Your task to perform on an android device: open app "Walmart Shopping & Grocery" (install if not already installed) and enter user name: "Hans@icloud.com" and password: "executing" Image 0: 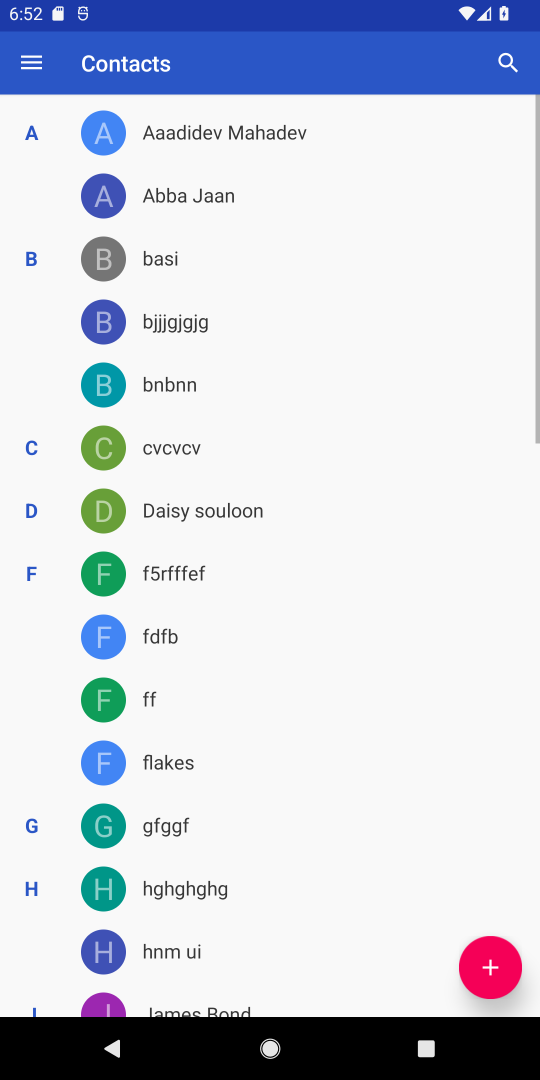
Step 0: press home button
Your task to perform on an android device: open app "Walmart Shopping & Grocery" (install if not already installed) and enter user name: "Hans@icloud.com" and password: "executing" Image 1: 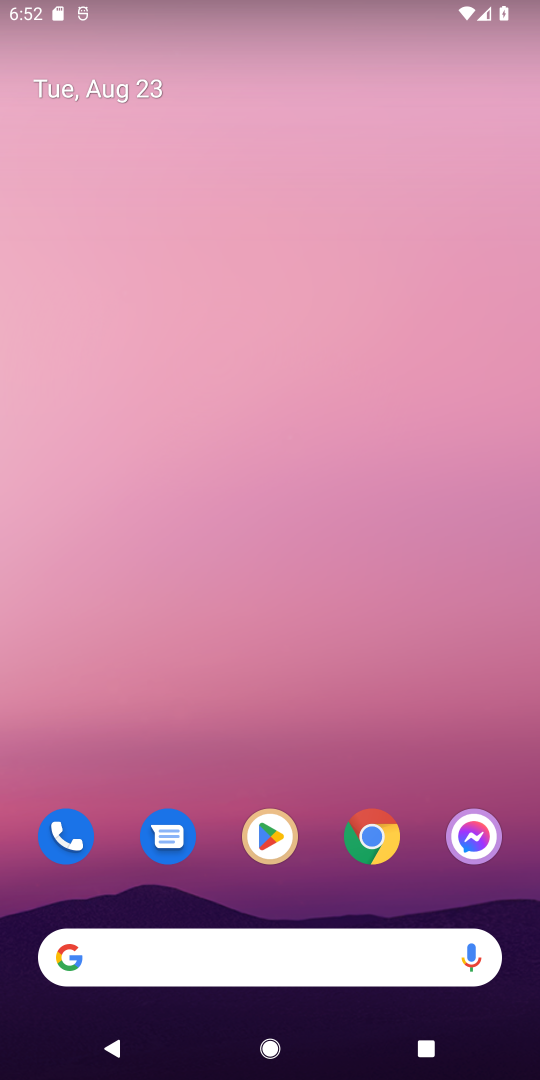
Step 1: click (277, 833)
Your task to perform on an android device: open app "Walmart Shopping & Grocery" (install if not already installed) and enter user name: "Hans@icloud.com" and password: "executing" Image 2: 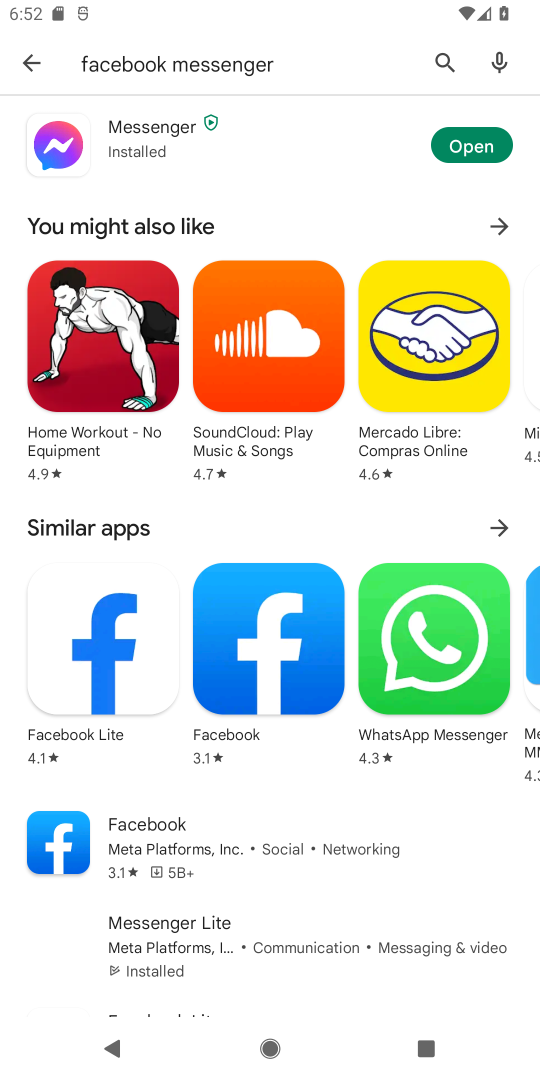
Step 2: click (438, 46)
Your task to perform on an android device: open app "Walmart Shopping & Grocery" (install if not already installed) and enter user name: "Hans@icloud.com" and password: "executing" Image 3: 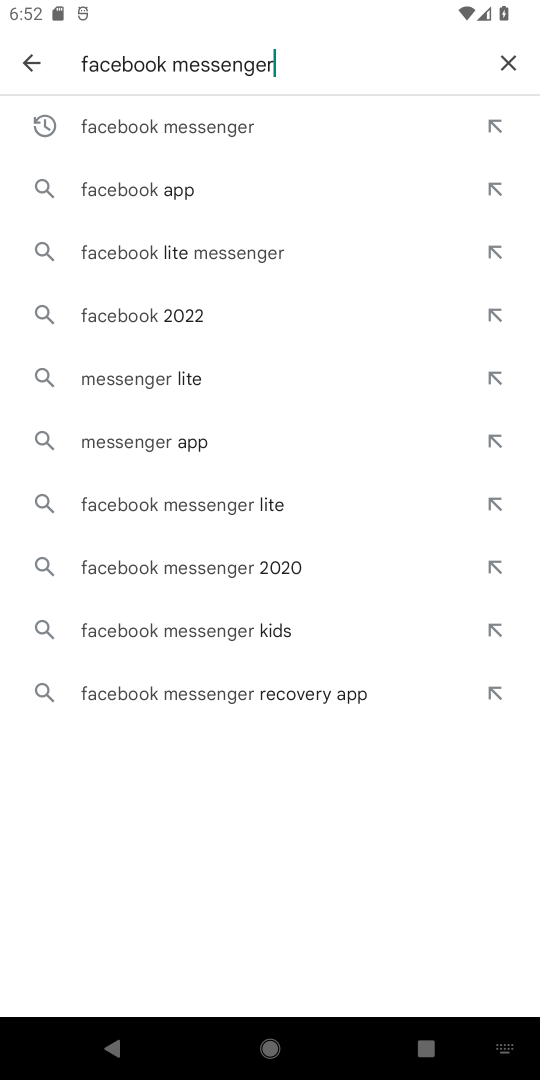
Step 3: click (512, 49)
Your task to perform on an android device: open app "Walmart Shopping & Grocery" (install if not already installed) and enter user name: "Hans@icloud.com" and password: "executing" Image 4: 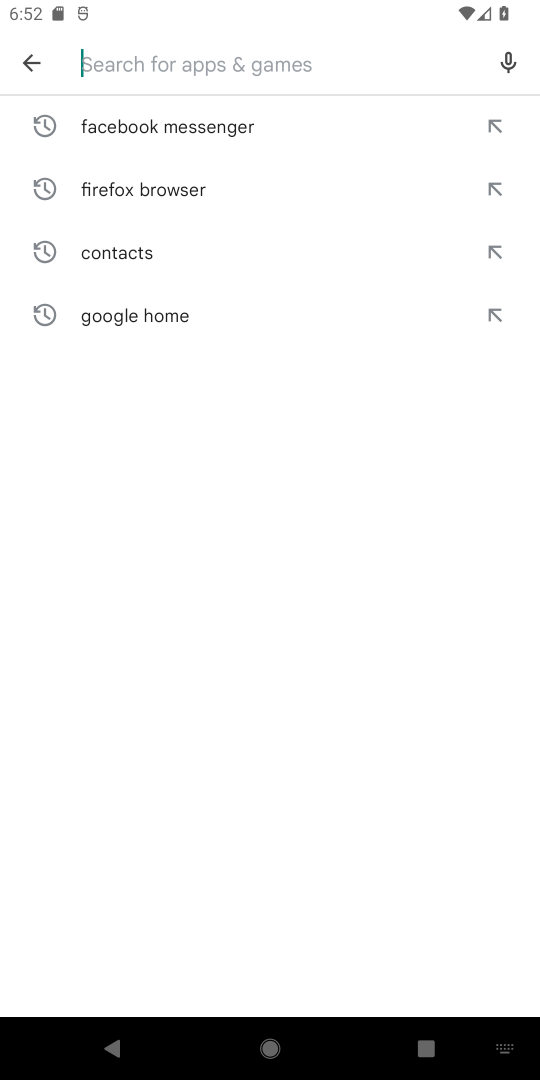
Step 4: type "Walmart Shopping & Grocery"
Your task to perform on an android device: open app "Walmart Shopping & Grocery" (install if not already installed) and enter user name: "Hans@icloud.com" and password: "executing" Image 5: 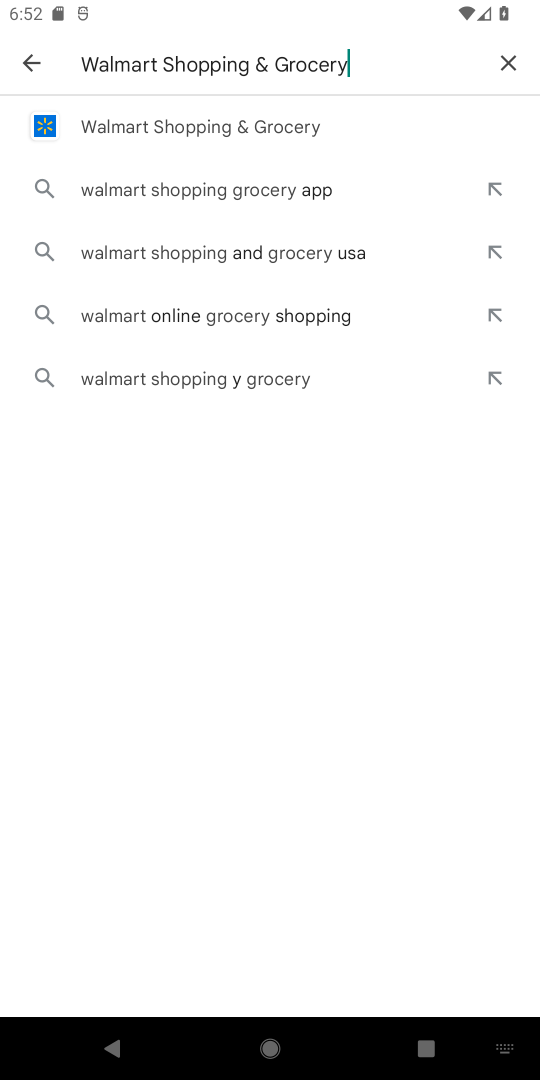
Step 5: click (286, 125)
Your task to perform on an android device: open app "Walmart Shopping & Grocery" (install if not already installed) and enter user name: "Hans@icloud.com" and password: "executing" Image 6: 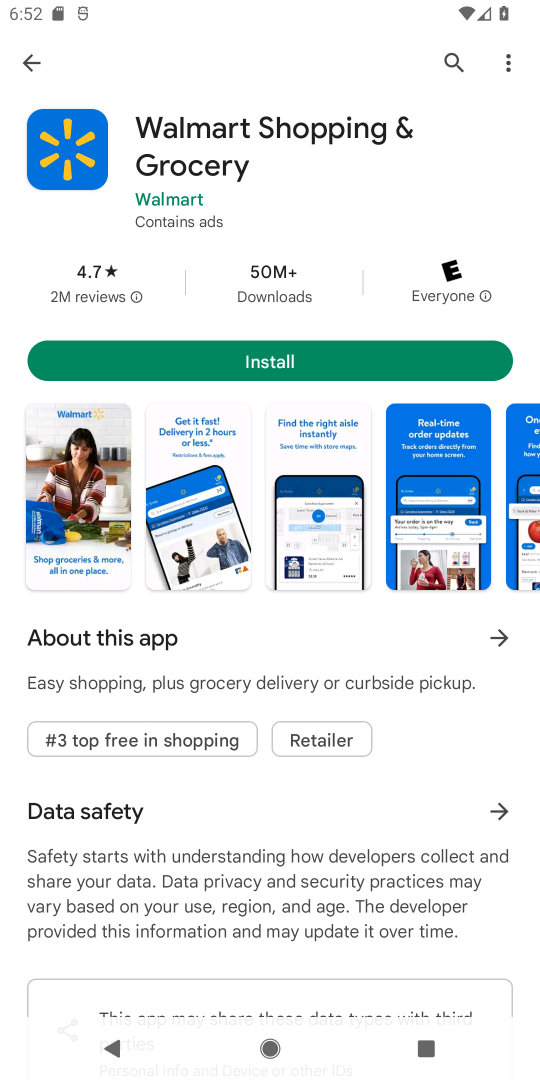
Step 6: click (270, 366)
Your task to perform on an android device: open app "Walmart Shopping & Grocery" (install if not already installed) and enter user name: "Hans@icloud.com" and password: "executing" Image 7: 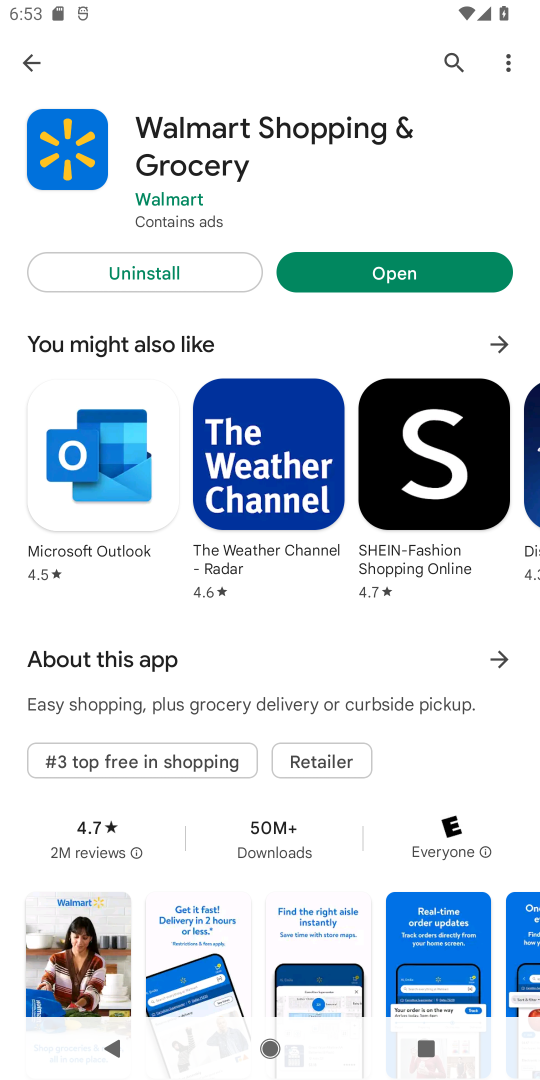
Step 7: click (432, 264)
Your task to perform on an android device: open app "Walmart Shopping & Grocery" (install if not already installed) and enter user name: "Hans@icloud.com" and password: "executing" Image 8: 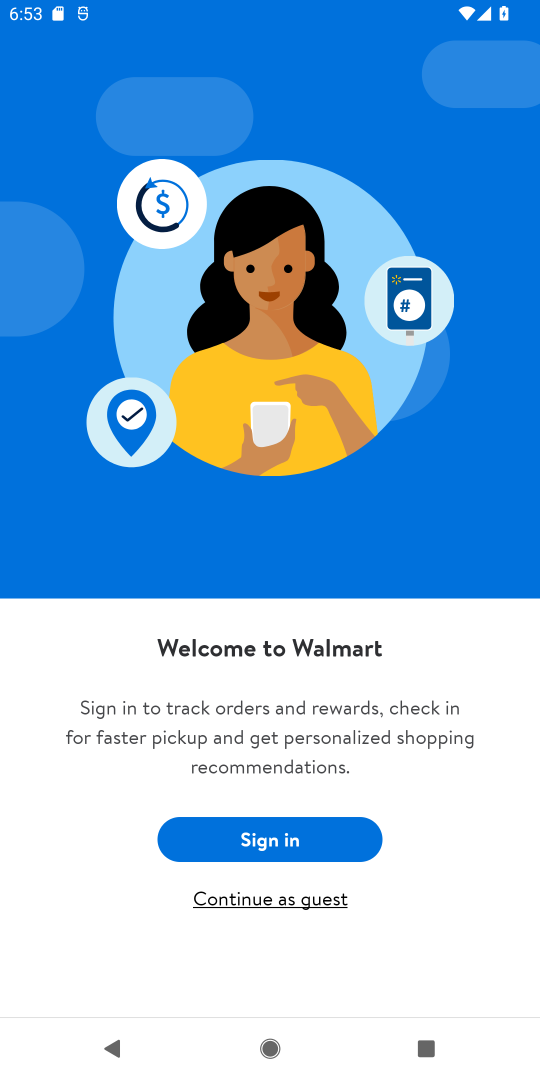
Step 8: click (291, 838)
Your task to perform on an android device: open app "Walmart Shopping & Grocery" (install if not already installed) and enter user name: "Hans@icloud.com" and password: "executing" Image 9: 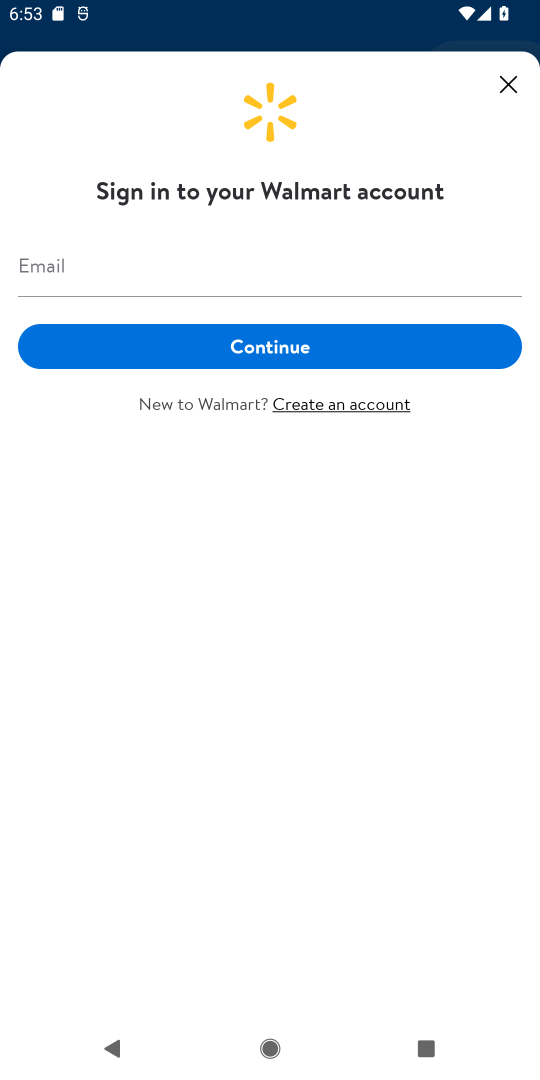
Step 9: click (92, 258)
Your task to perform on an android device: open app "Walmart Shopping & Grocery" (install if not already installed) and enter user name: "Hans@icloud.com" and password: "executing" Image 10: 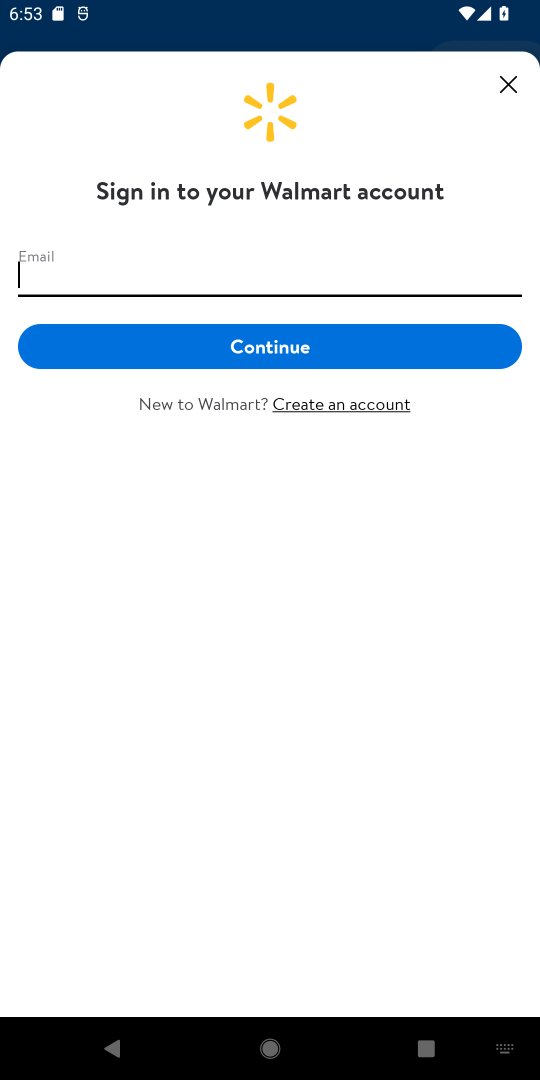
Step 10: type "Hans@icloud.com"
Your task to perform on an android device: open app "Walmart Shopping & Grocery" (install if not already installed) and enter user name: "Hans@icloud.com" and password: "executing" Image 11: 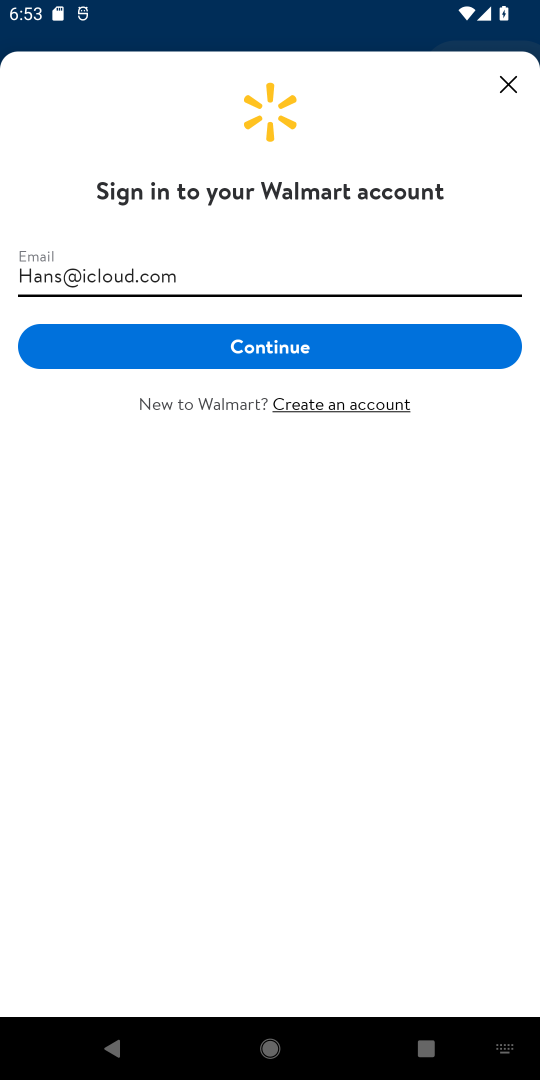
Step 11: click (279, 343)
Your task to perform on an android device: open app "Walmart Shopping & Grocery" (install if not already installed) and enter user name: "Hans@icloud.com" and password: "executing" Image 12: 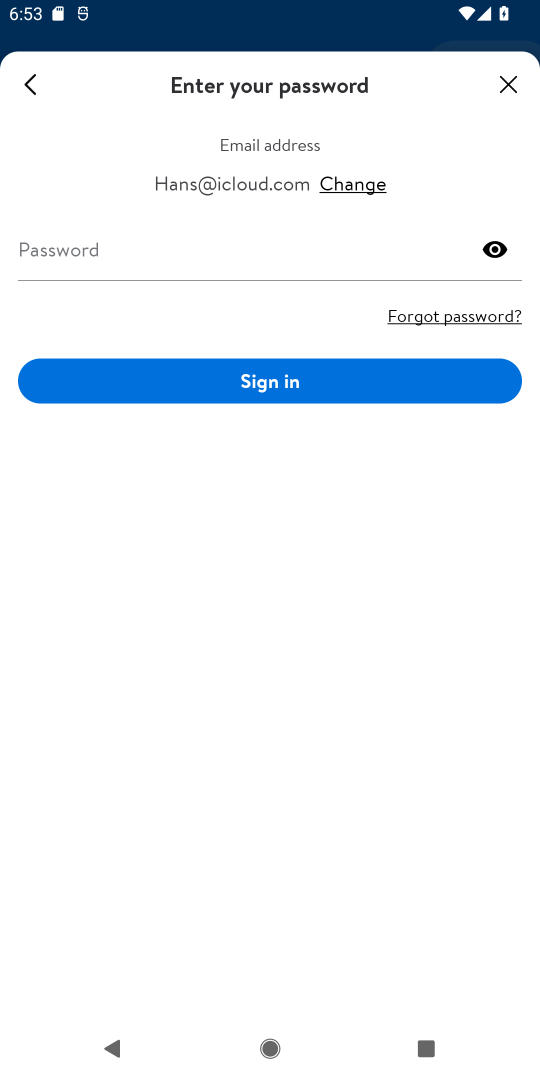
Step 12: click (165, 250)
Your task to perform on an android device: open app "Walmart Shopping & Grocery" (install if not already installed) and enter user name: "Hans@icloud.com" and password: "executing" Image 13: 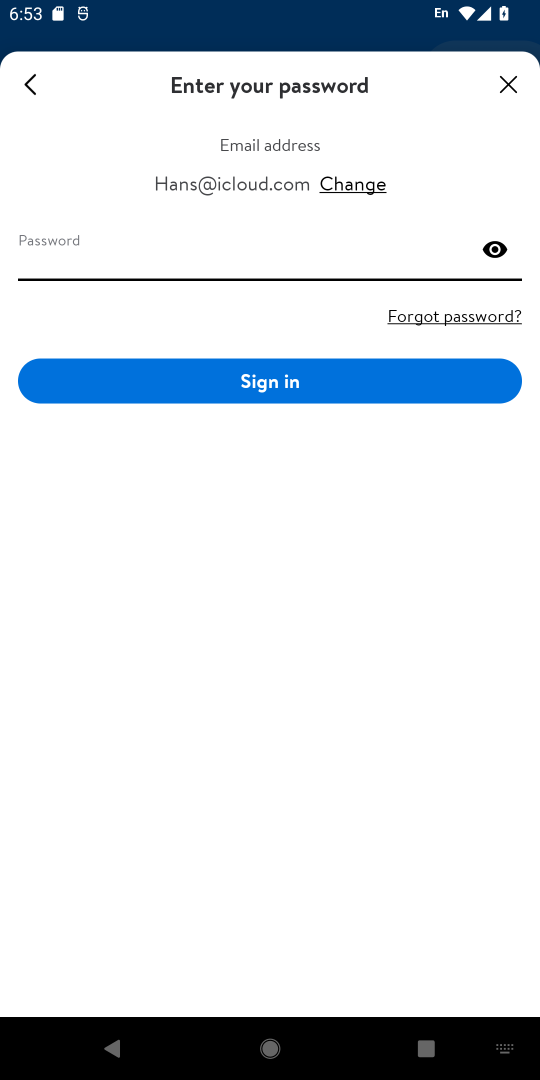
Step 13: type "executing"
Your task to perform on an android device: open app "Walmart Shopping & Grocery" (install if not already installed) and enter user name: "Hans@icloud.com" and password: "executing" Image 14: 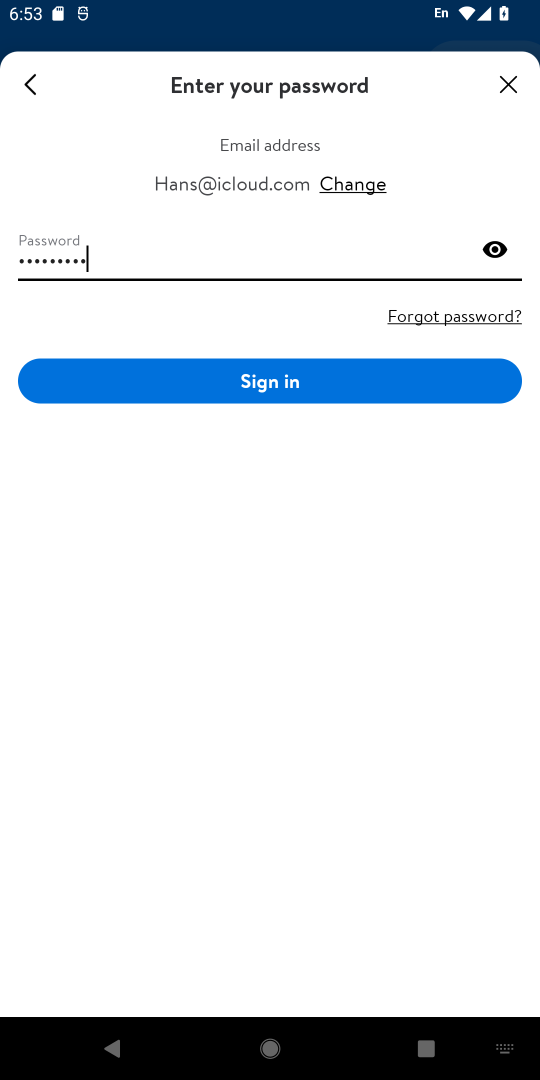
Step 14: task complete